Your task to perform on an android device: move a message to another label in the gmail app Image 0: 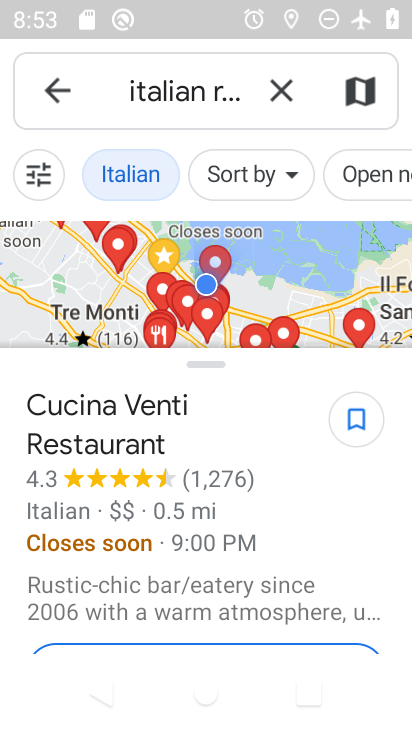
Step 0: press home button
Your task to perform on an android device: move a message to another label in the gmail app Image 1: 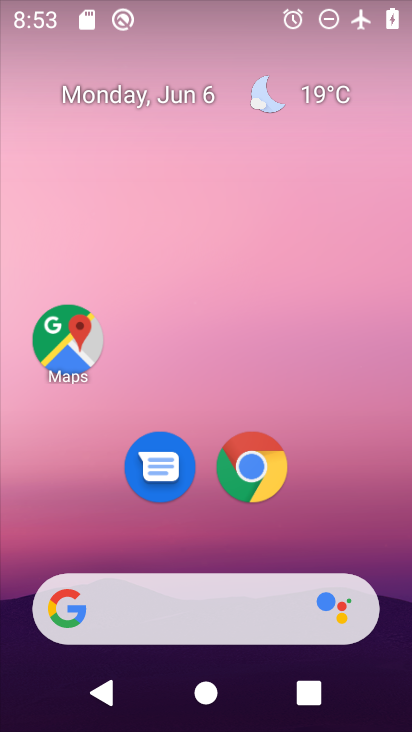
Step 1: drag from (352, 547) to (349, 116)
Your task to perform on an android device: move a message to another label in the gmail app Image 2: 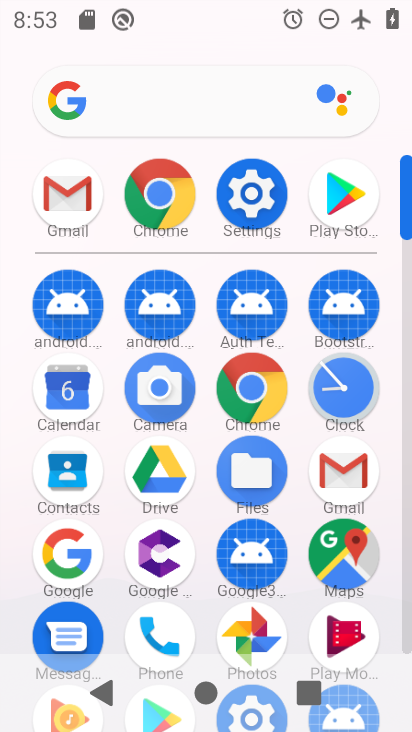
Step 2: click (356, 467)
Your task to perform on an android device: move a message to another label in the gmail app Image 3: 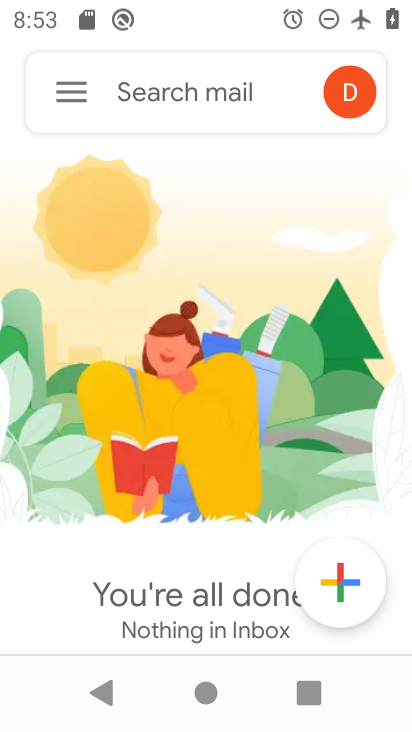
Step 3: task complete